Your task to perform on an android device: Go to wifi settings Image 0: 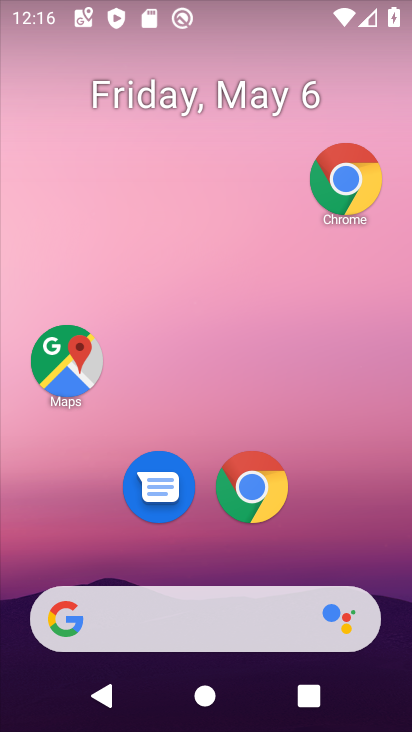
Step 0: drag from (318, 544) to (294, 182)
Your task to perform on an android device: Go to wifi settings Image 1: 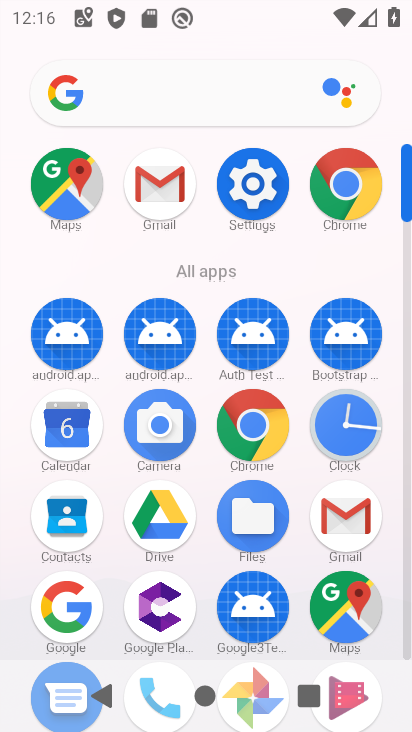
Step 1: click (241, 192)
Your task to perform on an android device: Go to wifi settings Image 2: 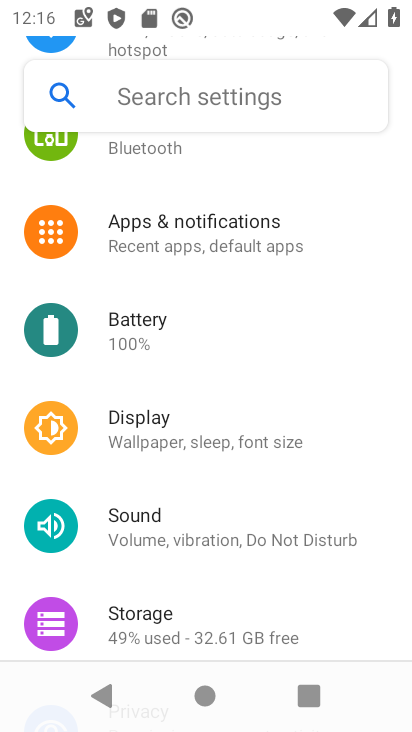
Step 2: drag from (297, 408) to (292, 698)
Your task to perform on an android device: Go to wifi settings Image 3: 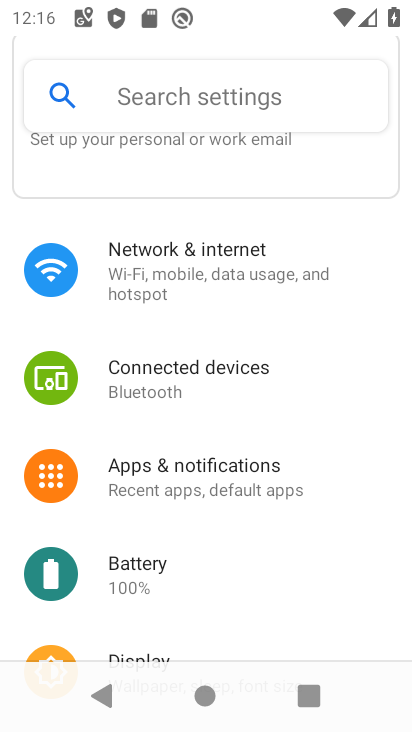
Step 3: click (263, 301)
Your task to perform on an android device: Go to wifi settings Image 4: 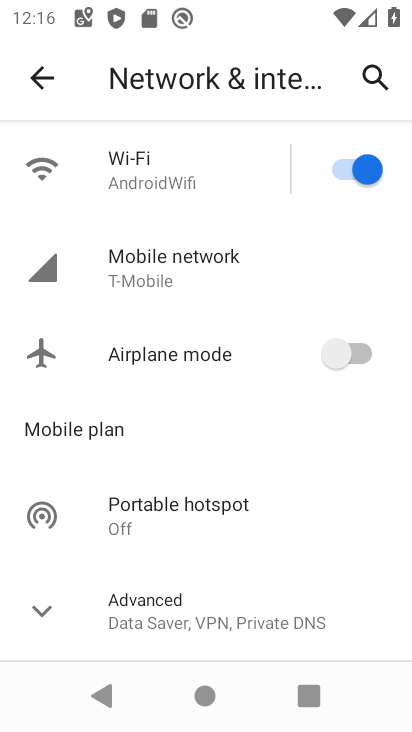
Step 4: click (193, 145)
Your task to perform on an android device: Go to wifi settings Image 5: 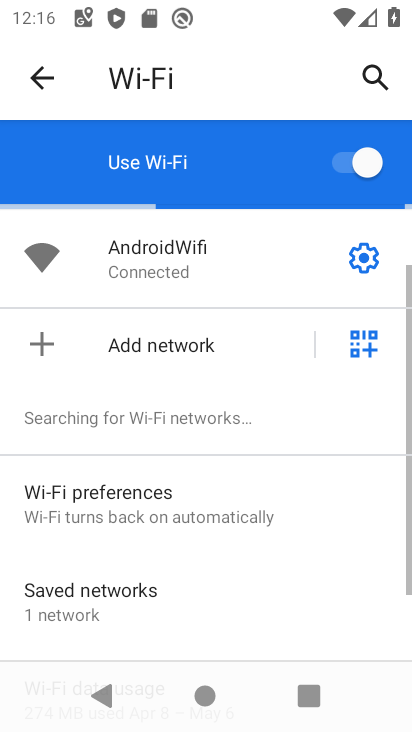
Step 5: task complete